Your task to perform on an android device: turn on wifi Image 0: 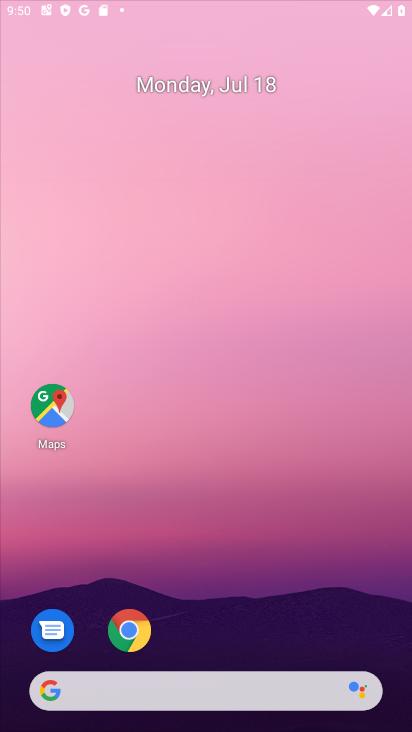
Step 0: drag from (366, 641) to (209, 111)
Your task to perform on an android device: turn on wifi Image 1: 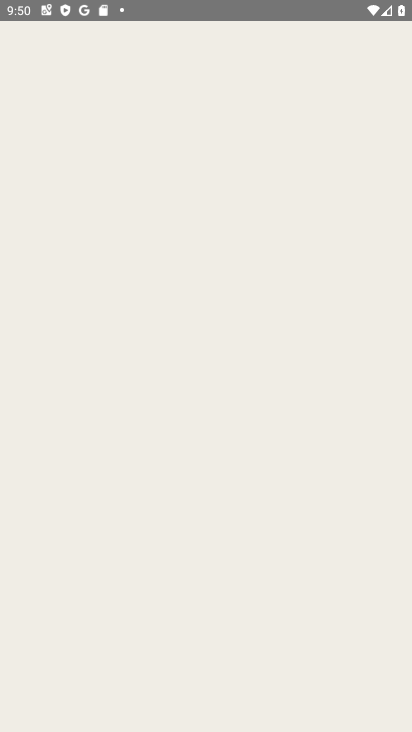
Step 1: task complete